Your task to perform on an android device: Open Google Chrome and click the shortcut for Amazon.com Image 0: 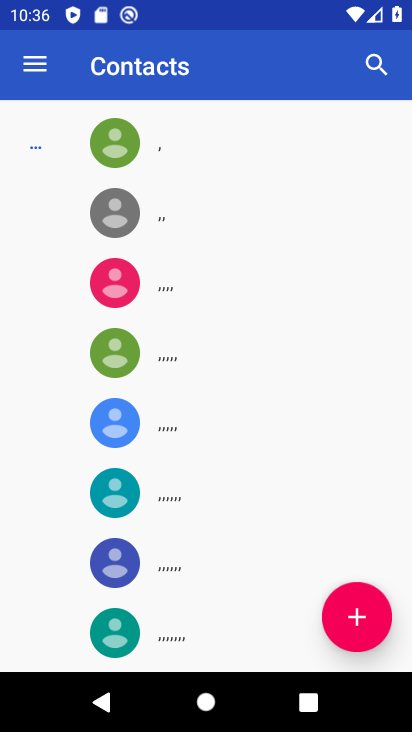
Step 0: press home button
Your task to perform on an android device: Open Google Chrome and click the shortcut for Amazon.com Image 1: 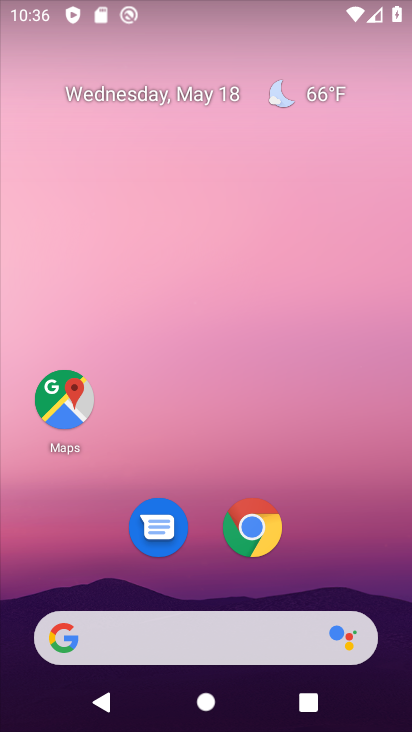
Step 1: drag from (338, 598) to (277, 155)
Your task to perform on an android device: Open Google Chrome and click the shortcut for Amazon.com Image 2: 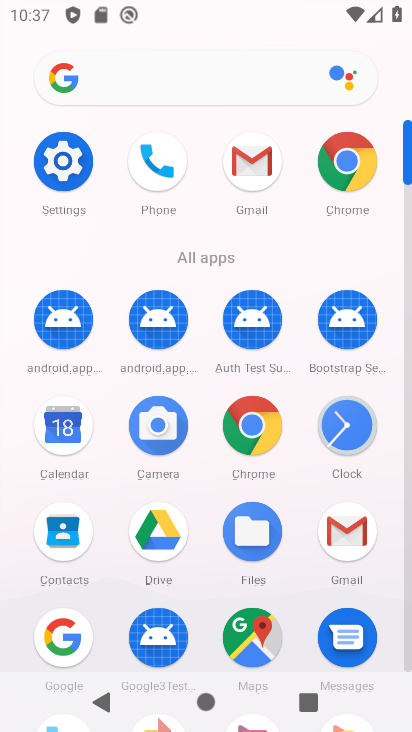
Step 2: click (342, 163)
Your task to perform on an android device: Open Google Chrome and click the shortcut for Amazon.com Image 3: 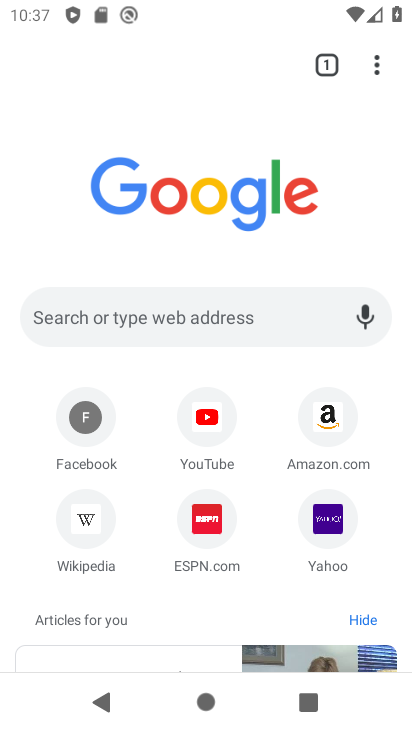
Step 3: click (344, 406)
Your task to perform on an android device: Open Google Chrome and click the shortcut for Amazon.com Image 4: 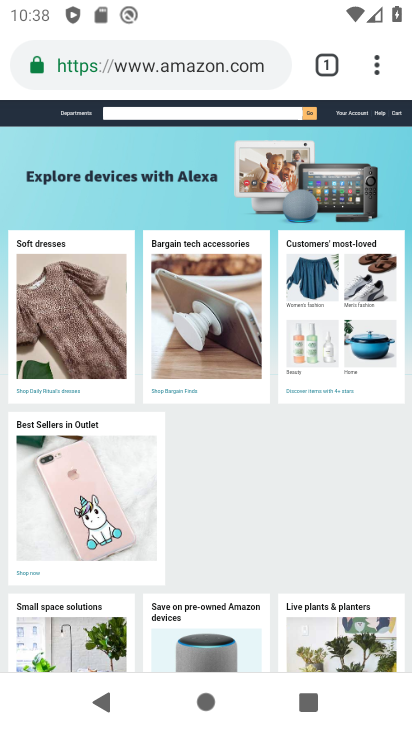
Step 4: task complete